Your task to perform on an android device: toggle pop-ups in chrome Image 0: 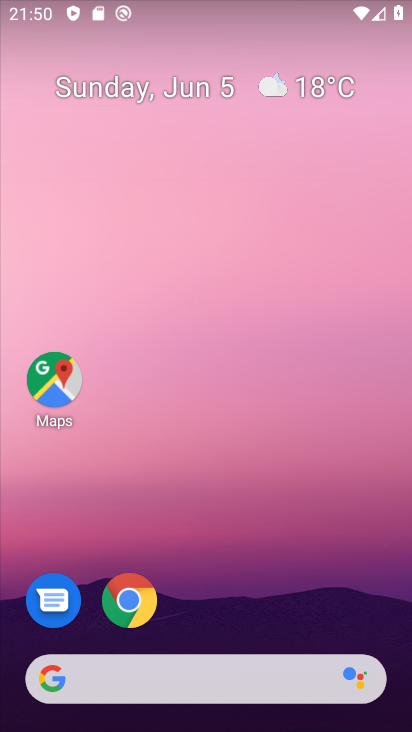
Step 0: drag from (282, 440) to (254, 193)
Your task to perform on an android device: toggle pop-ups in chrome Image 1: 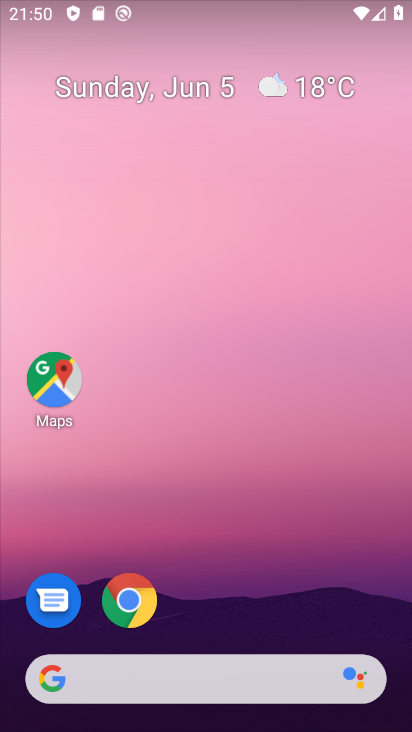
Step 1: drag from (329, 576) to (272, 165)
Your task to perform on an android device: toggle pop-ups in chrome Image 2: 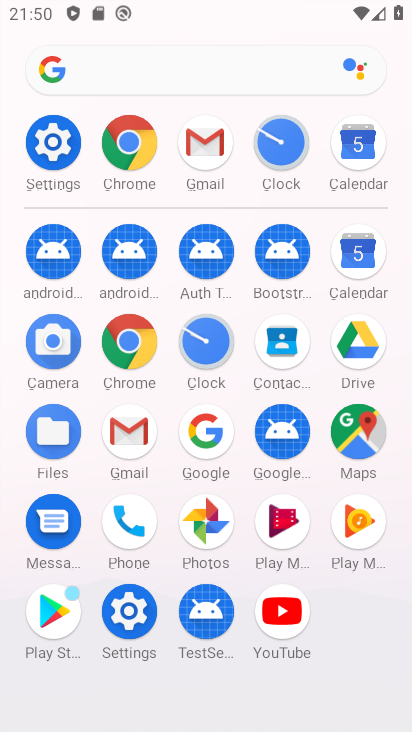
Step 2: click (126, 339)
Your task to perform on an android device: toggle pop-ups in chrome Image 3: 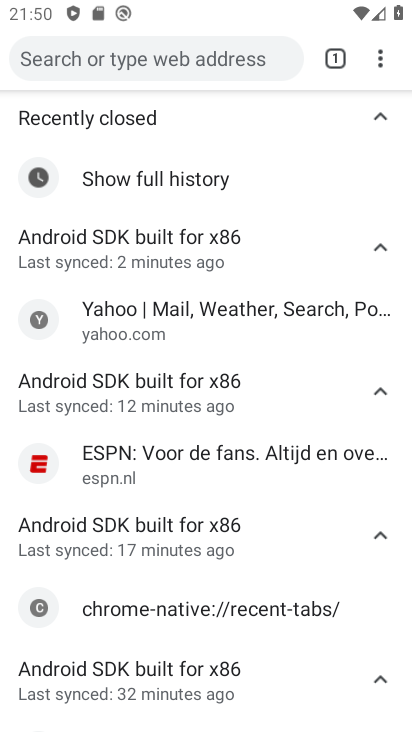
Step 3: click (379, 59)
Your task to perform on an android device: toggle pop-ups in chrome Image 4: 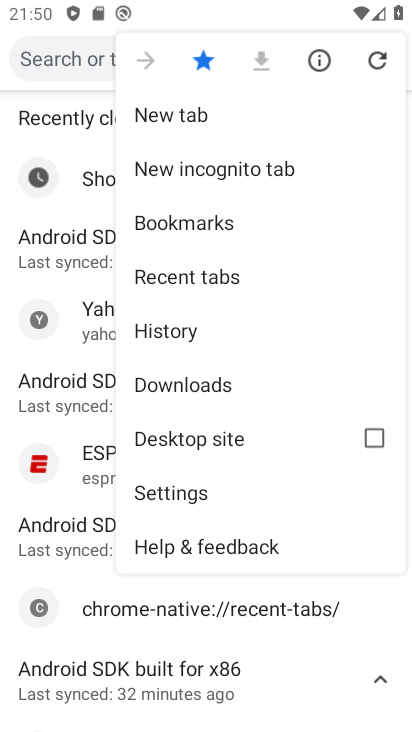
Step 4: drag from (233, 486) to (262, 152)
Your task to perform on an android device: toggle pop-ups in chrome Image 5: 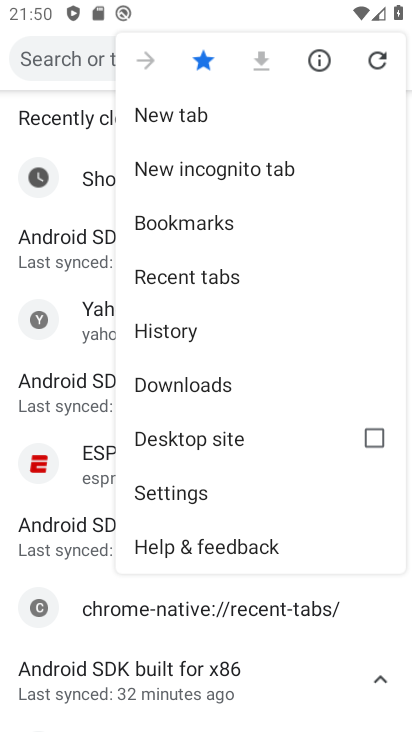
Step 5: click (177, 490)
Your task to perform on an android device: toggle pop-ups in chrome Image 6: 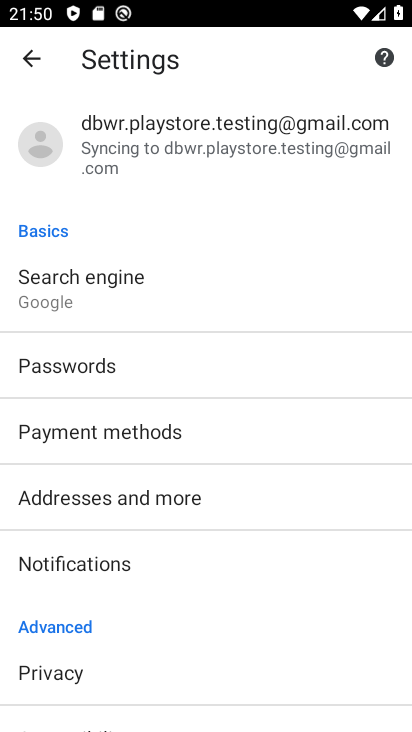
Step 6: drag from (253, 579) to (292, 147)
Your task to perform on an android device: toggle pop-ups in chrome Image 7: 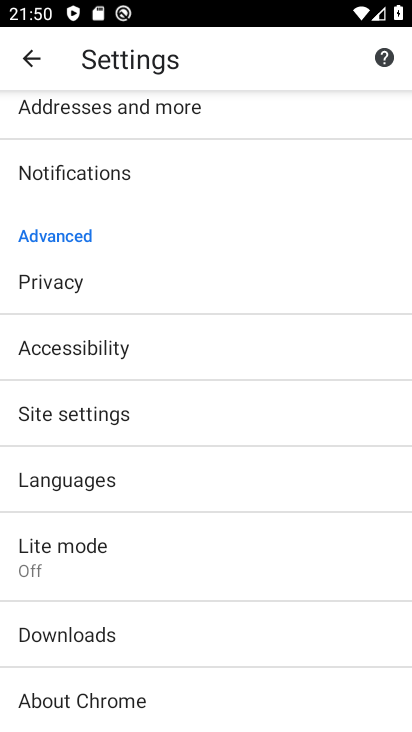
Step 7: click (128, 407)
Your task to perform on an android device: toggle pop-ups in chrome Image 8: 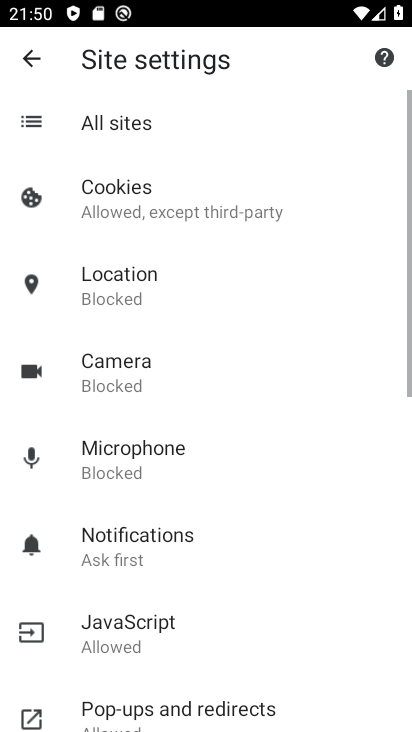
Step 8: drag from (335, 616) to (326, 153)
Your task to perform on an android device: toggle pop-ups in chrome Image 9: 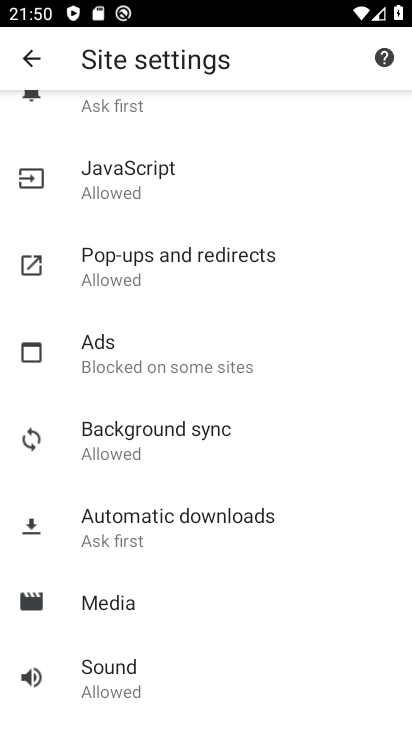
Step 9: click (187, 268)
Your task to perform on an android device: toggle pop-ups in chrome Image 10: 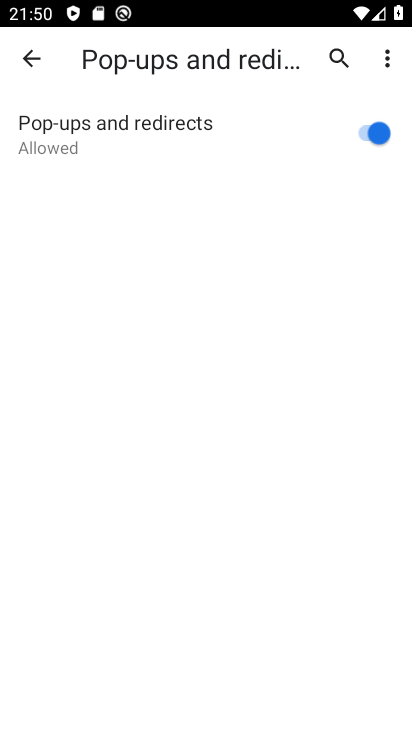
Step 10: click (362, 122)
Your task to perform on an android device: toggle pop-ups in chrome Image 11: 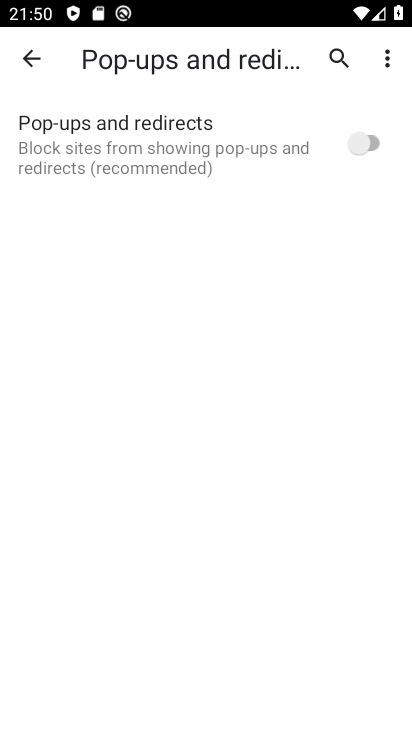
Step 11: task complete